Your task to perform on an android device: Open Chrome and go to settings Image 0: 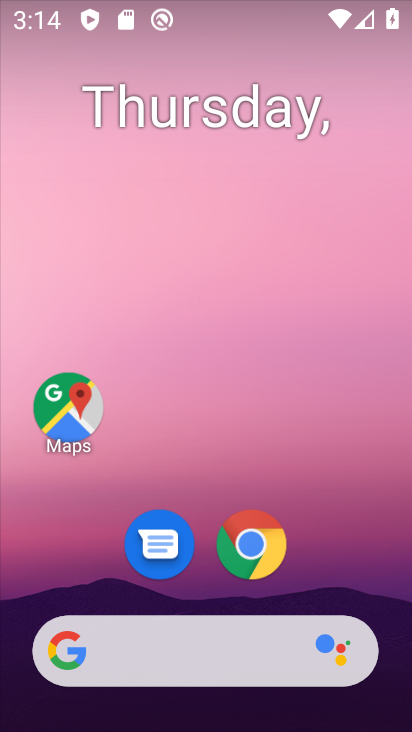
Step 0: drag from (332, 588) to (319, 10)
Your task to perform on an android device: Open Chrome and go to settings Image 1: 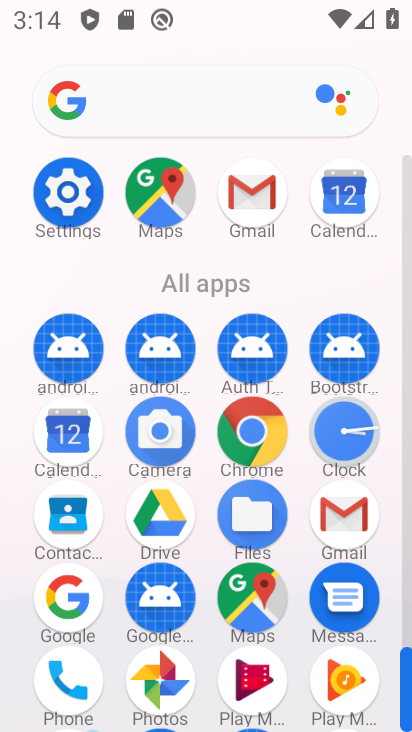
Step 1: click (270, 434)
Your task to perform on an android device: Open Chrome and go to settings Image 2: 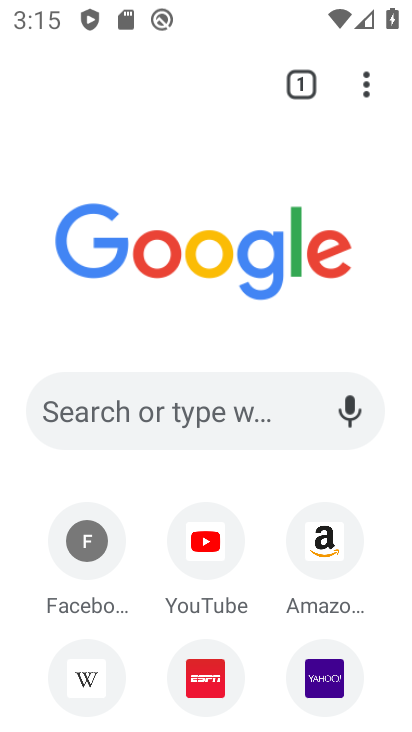
Step 2: click (369, 72)
Your task to perform on an android device: Open Chrome and go to settings Image 3: 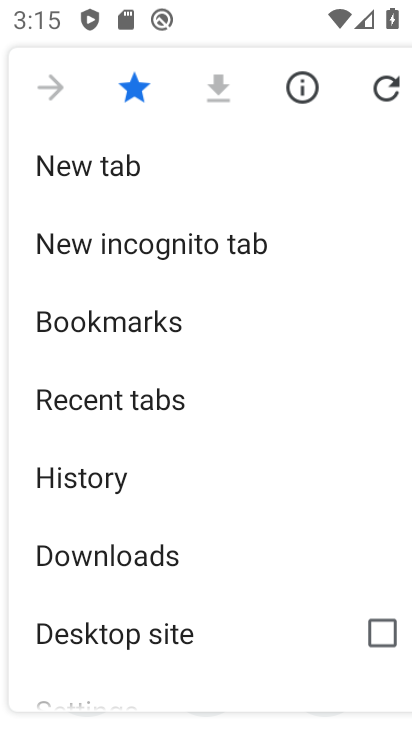
Step 3: drag from (123, 609) to (150, 129)
Your task to perform on an android device: Open Chrome and go to settings Image 4: 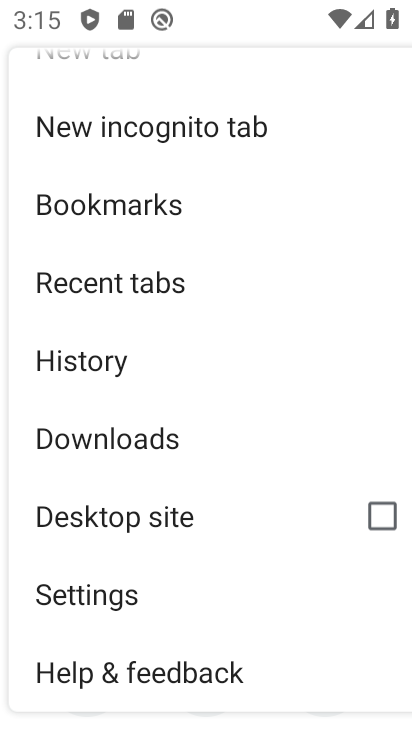
Step 4: click (123, 585)
Your task to perform on an android device: Open Chrome and go to settings Image 5: 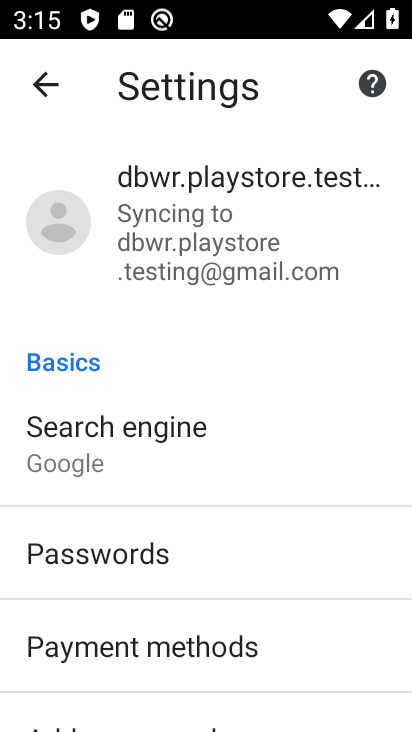
Step 5: task complete